Your task to perform on an android device: Open the stopwatch Image 0: 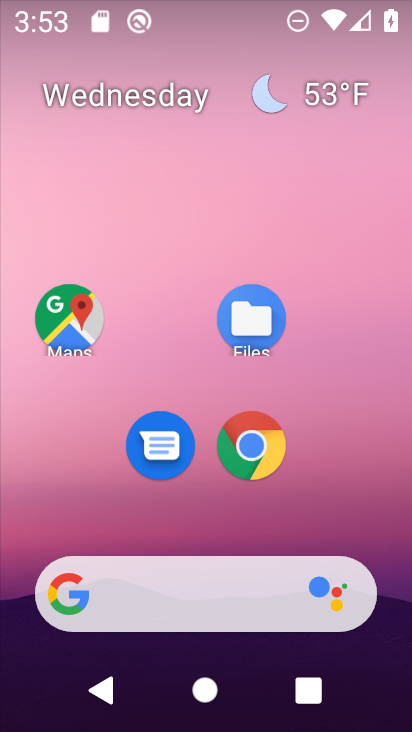
Step 0: drag from (347, 497) to (410, 39)
Your task to perform on an android device: Open the stopwatch Image 1: 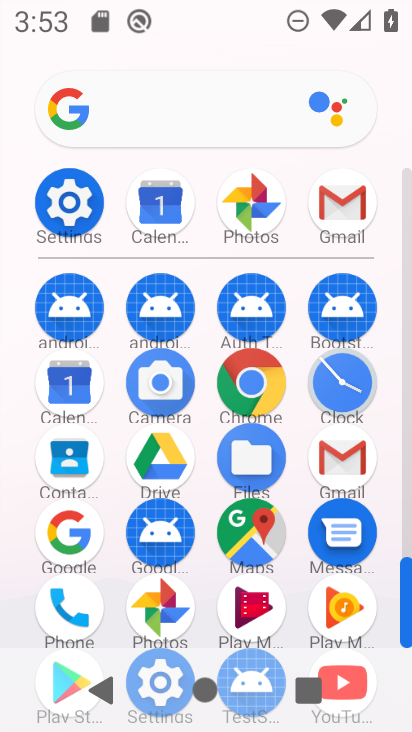
Step 1: click (361, 366)
Your task to perform on an android device: Open the stopwatch Image 2: 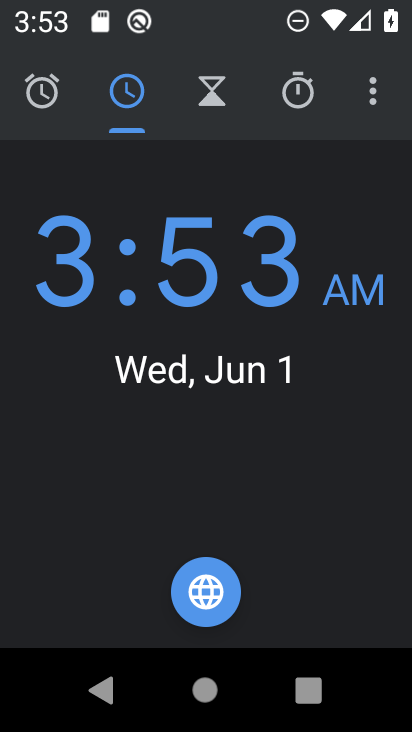
Step 2: click (372, 84)
Your task to perform on an android device: Open the stopwatch Image 3: 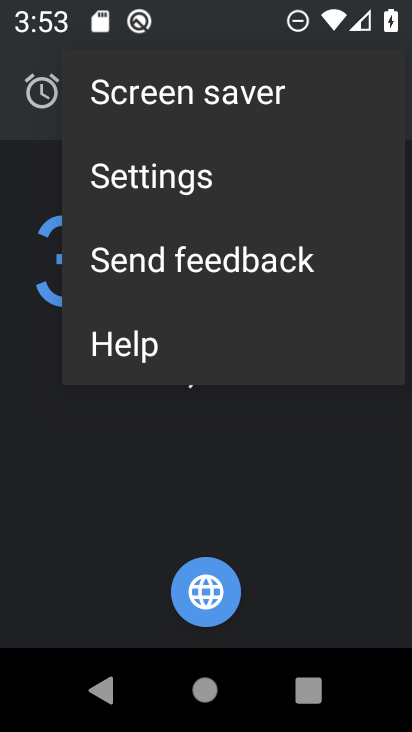
Step 3: click (287, 549)
Your task to perform on an android device: Open the stopwatch Image 4: 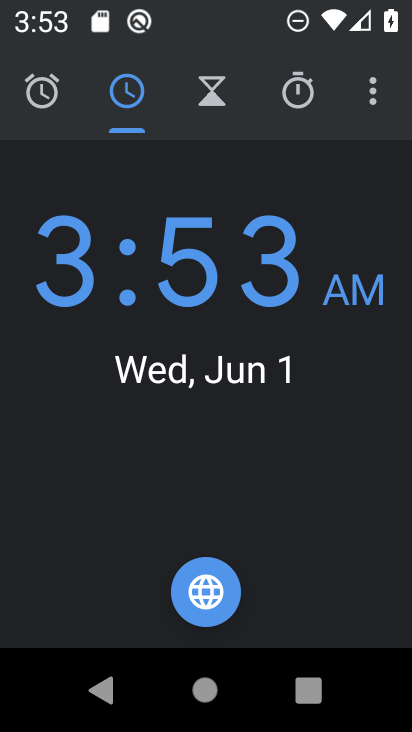
Step 4: click (323, 80)
Your task to perform on an android device: Open the stopwatch Image 5: 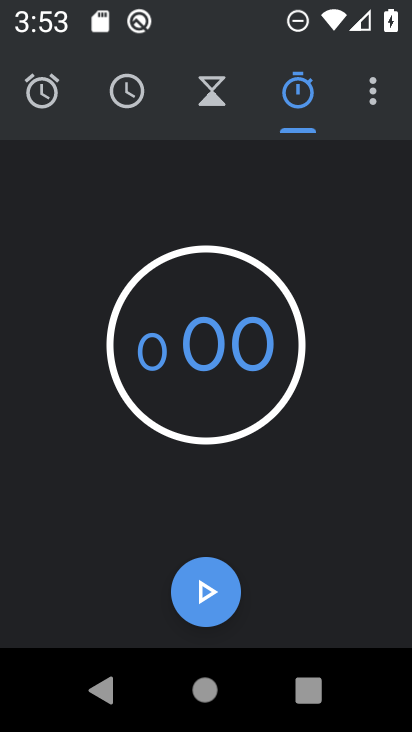
Step 5: click (183, 361)
Your task to perform on an android device: Open the stopwatch Image 6: 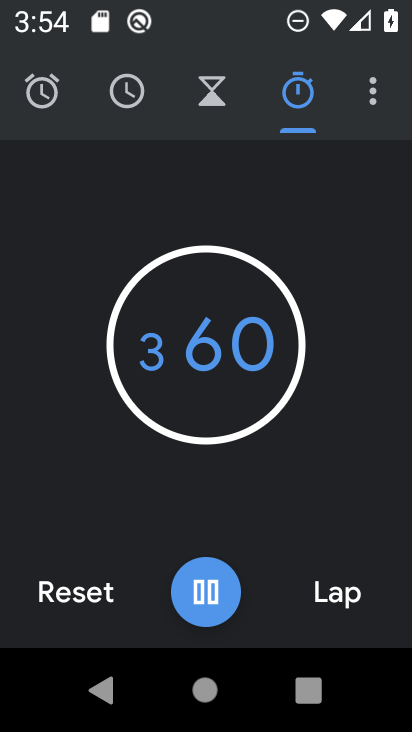
Step 6: task complete